Your task to perform on an android device: What is the capital of Mexico? Image 0: 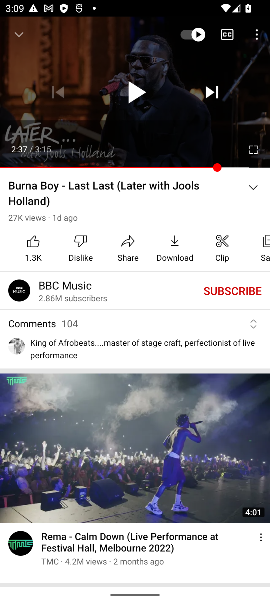
Step 0: press home button
Your task to perform on an android device: What is the capital of Mexico? Image 1: 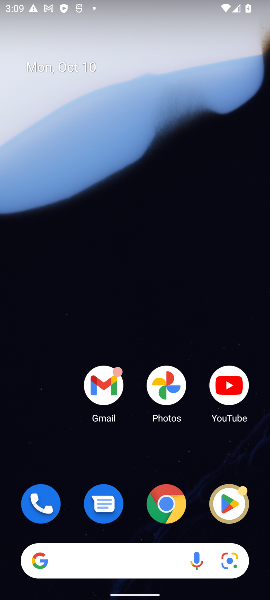
Step 1: drag from (100, 561) to (267, 167)
Your task to perform on an android device: What is the capital of Mexico? Image 2: 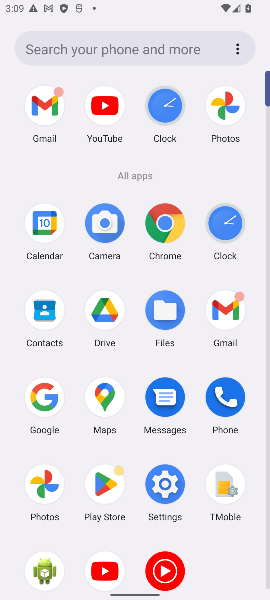
Step 2: click (162, 220)
Your task to perform on an android device: What is the capital of Mexico? Image 3: 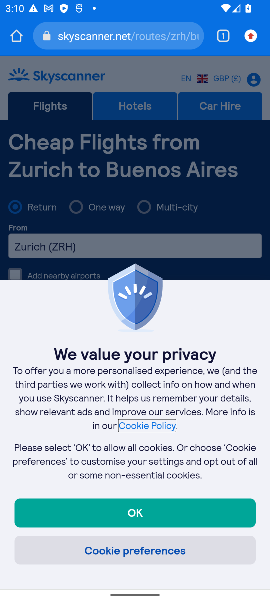
Step 3: click (110, 47)
Your task to perform on an android device: What is the capital of Mexico? Image 4: 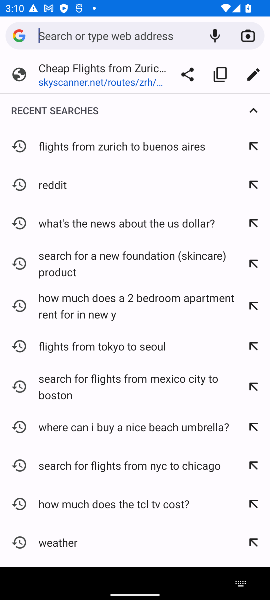
Step 4: type " capital of Mexico?"
Your task to perform on an android device: What is the capital of Mexico? Image 5: 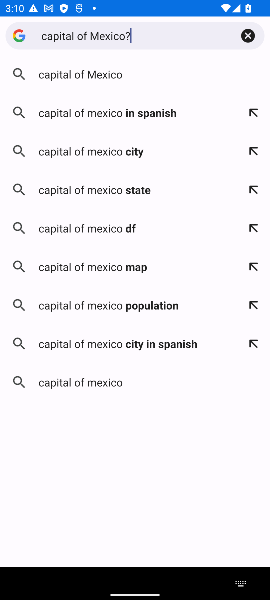
Step 5: press enter
Your task to perform on an android device: What is the capital of Mexico? Image 6: 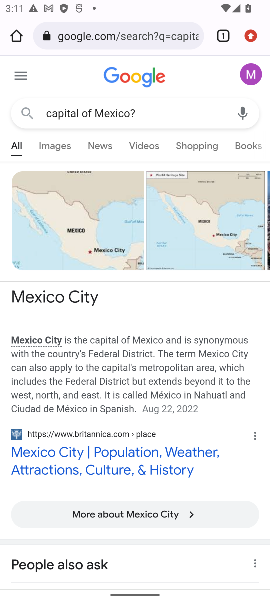
Step 6: task complete